Your task to perform on an android device: What's the weather going to be this weekend? Image 0: 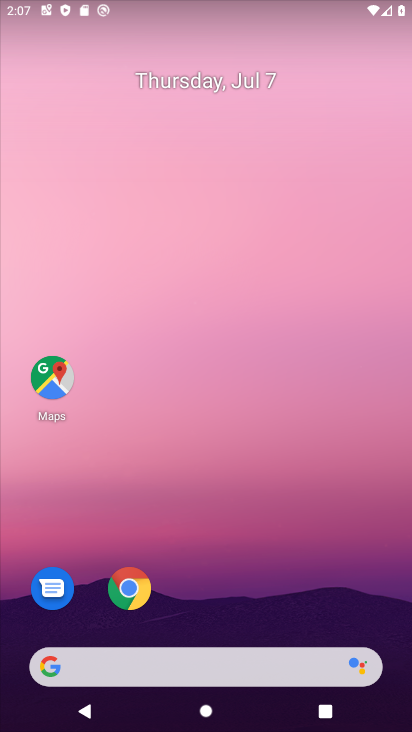
Step 0: drag from (205, 585) to (232, 25)
Your task to perform on an android device: What's the weather going to be this weekend? Image 1: 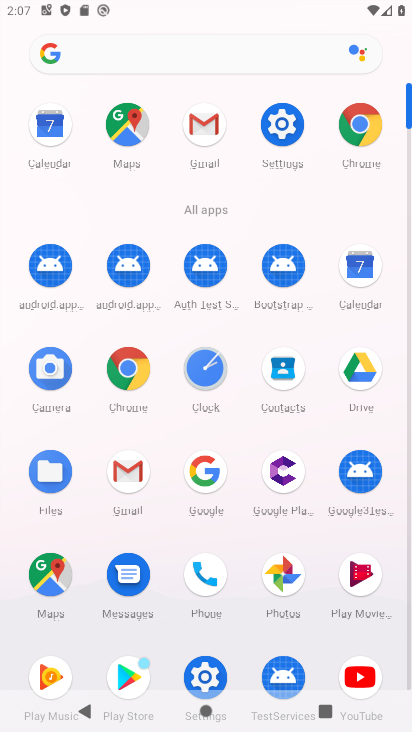
Step 1: click (90, 59)
Your task to perform on an android device: What's the weather going to be this weekend? Image 2: 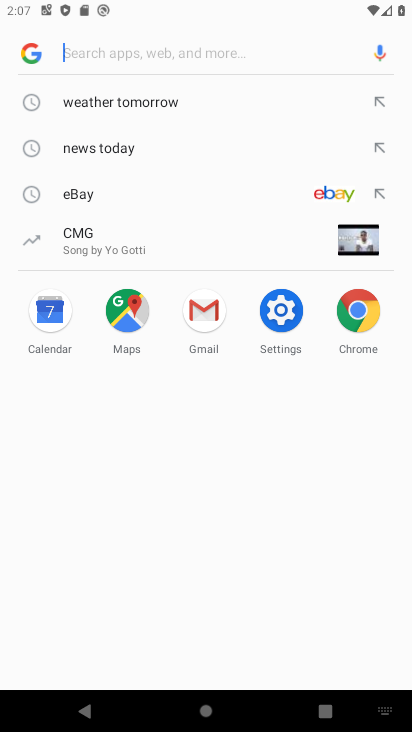
Step 2: type "wather"
Your task to perform on an android device: What's the weather going to be this weekend? Image 3: 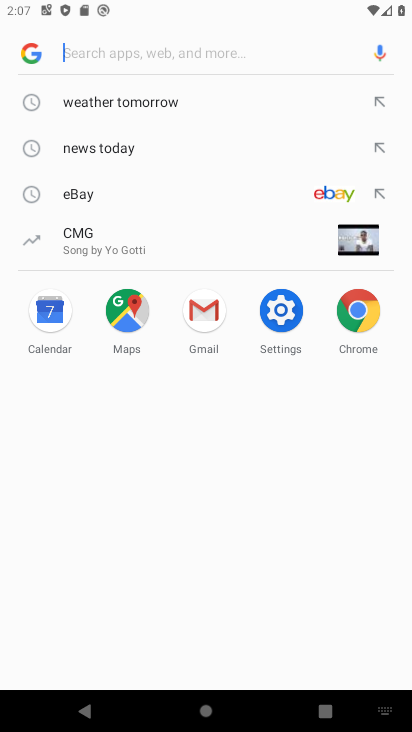
Step 3: click (112, 96)
Your task to perform on an android device: What's the weather going to be this weekend? Image 4: 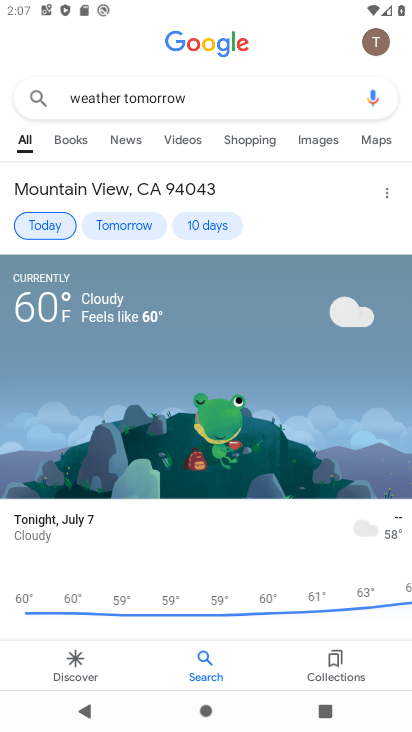
Step 4: click (192, 231)
Your task to perform on an android device: What's the weather going to be this weekend? Image 5: 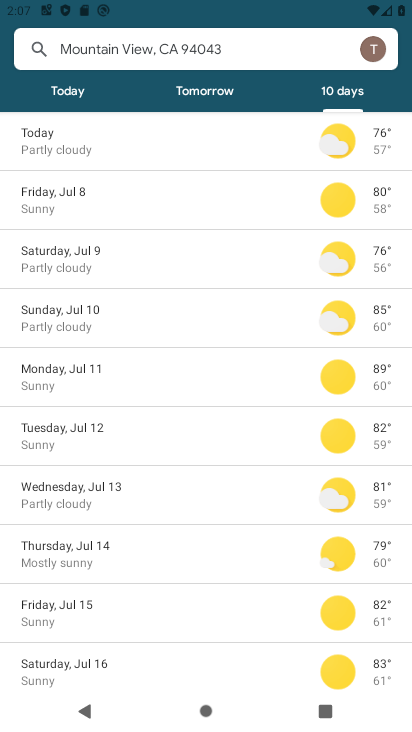
Step 5: task complete